Your task to perform on an android device: find snoozed emails in the gmail app Image 0: 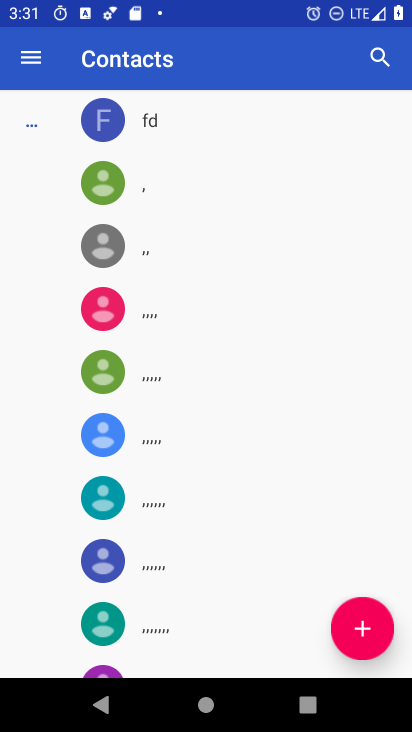
Step 0: press home button
Your task to perform on an android device: find snoozed emails in the gmail app Image 1: 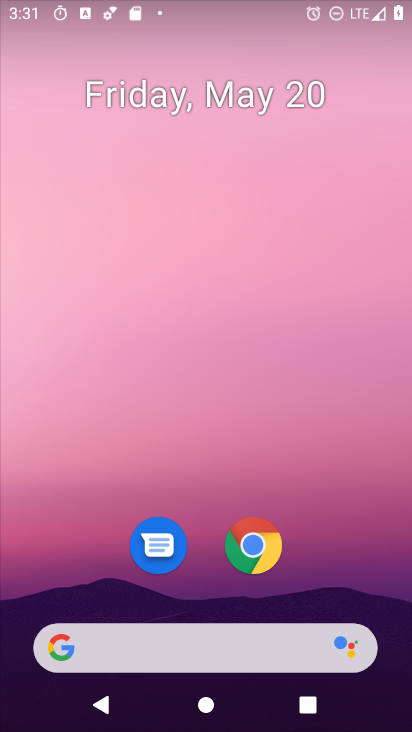
Step 1: drag from (299, 543) to (293, 2)
Your task to perform on an android device: find snoozed emails in the gmail app Image 2: 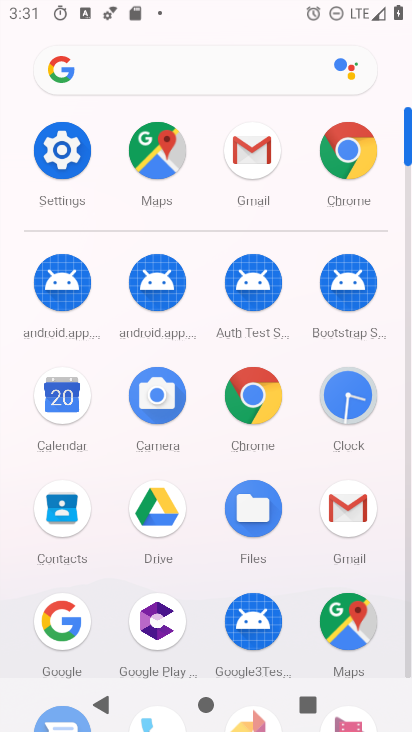
Step 2: click (343, 509)
Your task to perform on an android device: find snoozed emails in the gmail app Image 3: 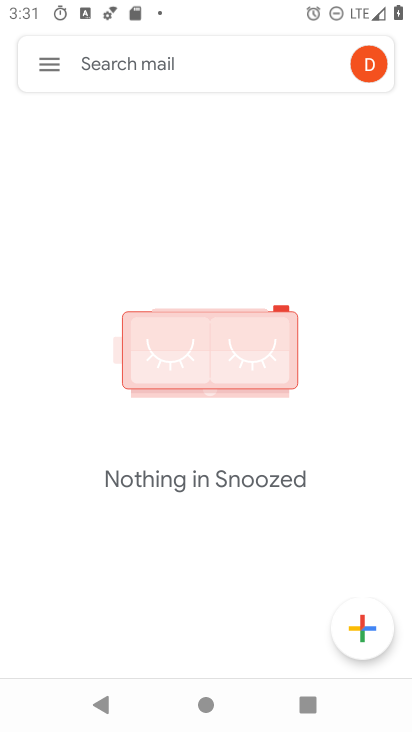
Step 3: task complete